Your task to perform on an android device: open a new tab in the chrome app Image 0: 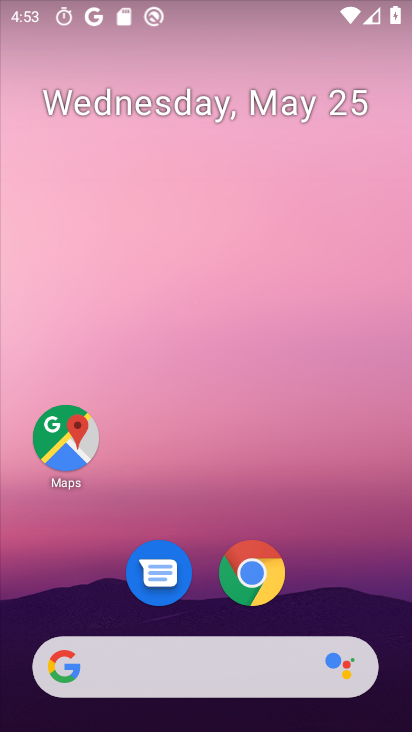
Step 0: click (260, 578)
Your task to perform on an android device: open a new tab in the chrome app Image 1: 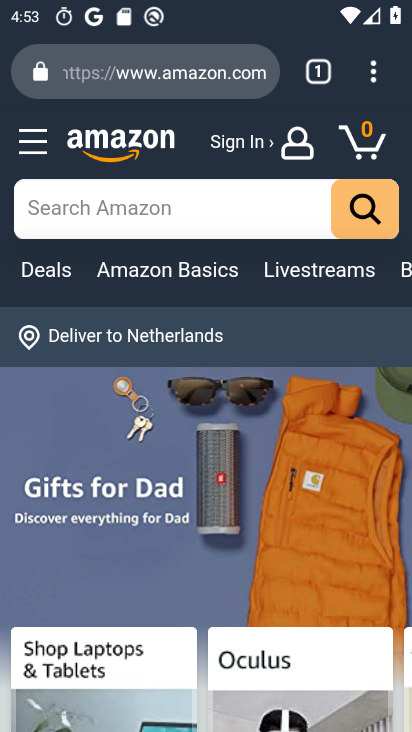
Step 1: click (372, 82)
Your task to perform on an android device: open a new tab in the chrome app Image 2: 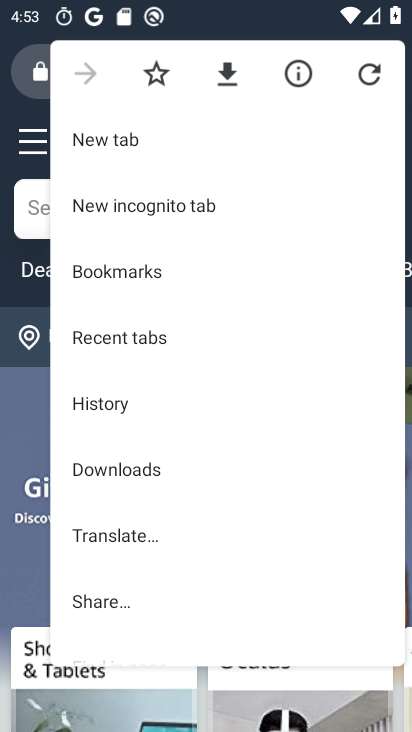
Step 2: click (109, 134)
Your task to perform on an android device: open a new tab in the chrome app Image 3: 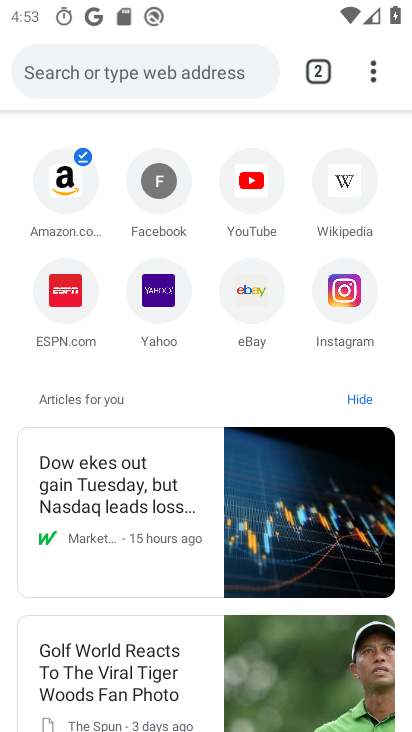
Step 3: task complete